Your task to perform on an android device: Go to Wikipedia Image 0: 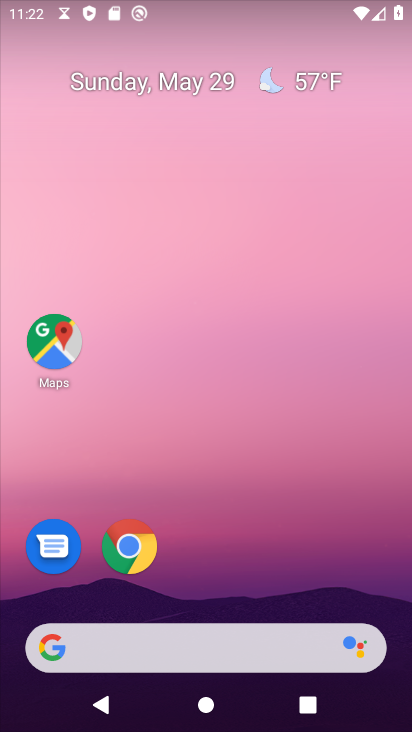
Step 0: press home button
Your task to perform on an android device: Go to Wikipedia Image 1: 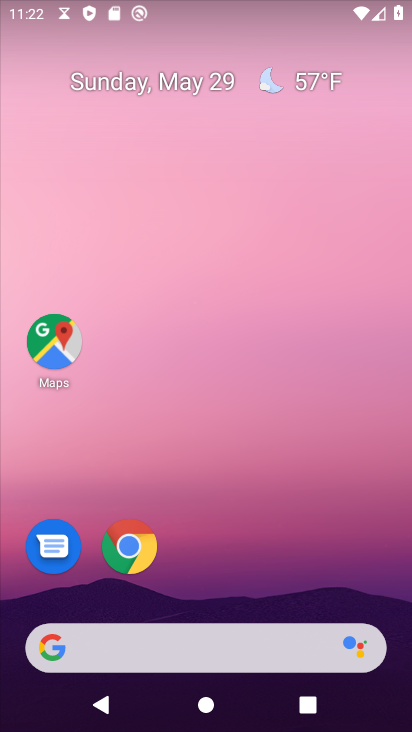
Step 1: drag from (199, 622) to (366, 180)
Your task to perform on an android device: Go to Wikipedia Image 2: 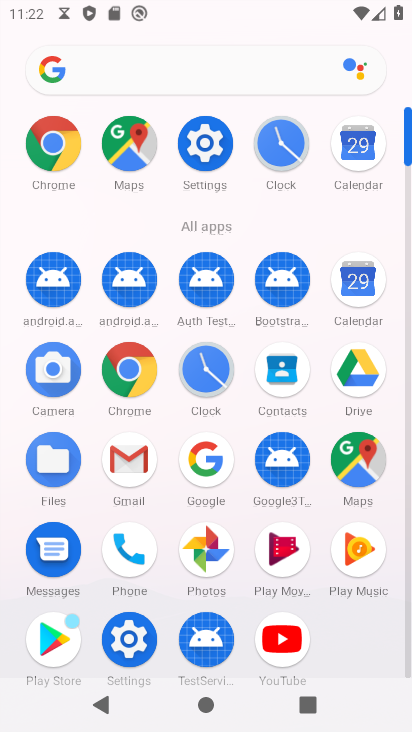
Step 2: click (59, 142)
Your task to perform on an android device: Go to Wikipedia Image 3: 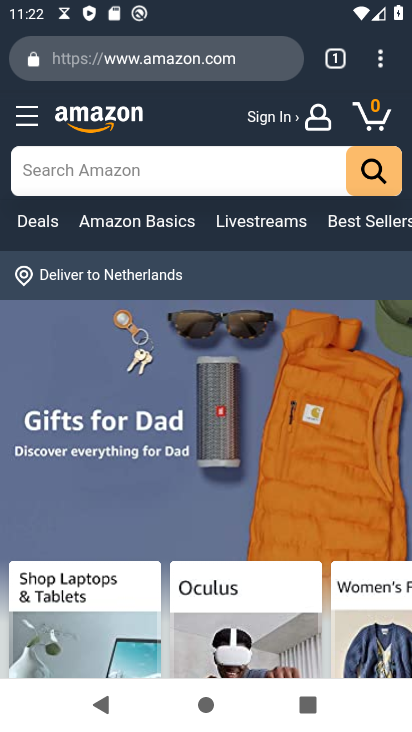
Step 3: drag from (381, 69) to (187, 112)
Your task to perform on an android device: Go to Wikipedia Image 4: 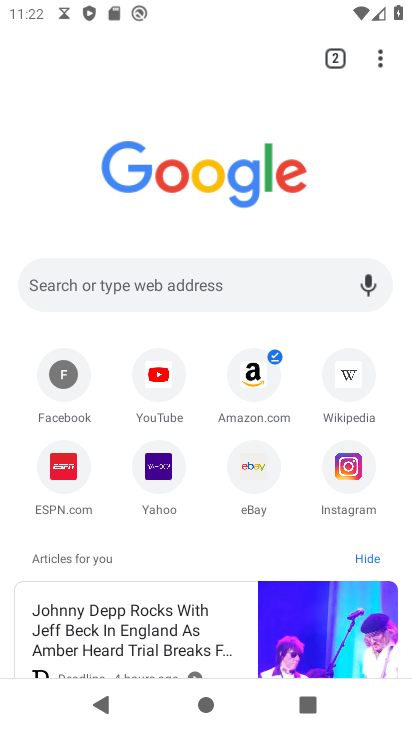
Step 4: click (349, 377)
Your task to perform on an android device: Go to Wikipedia Image 5: 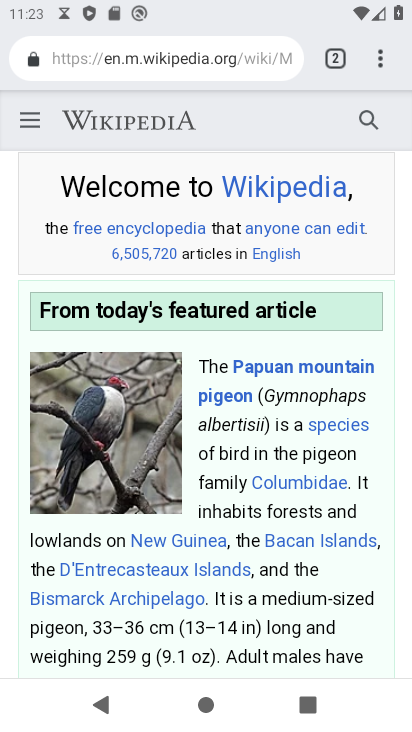
Step 5: task complete